Your task to perform on an android device: change alarm snooze length Image 0: 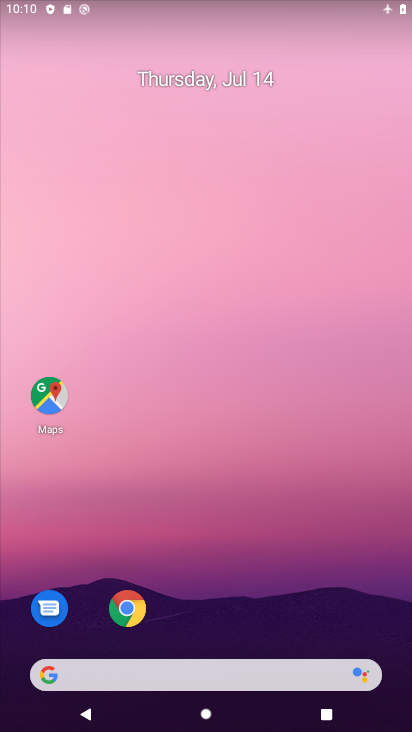
Step 0: drag from (227, 597) to (256, 2)
Your task to perform on an android device: change alarm snooze length Image 1: 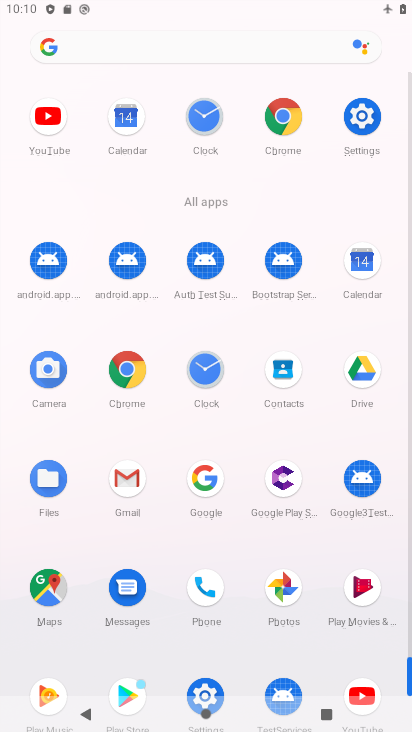
Step 1: click (196, 373)
Your task to perform on an android device: change alarm snooze length Image 2: 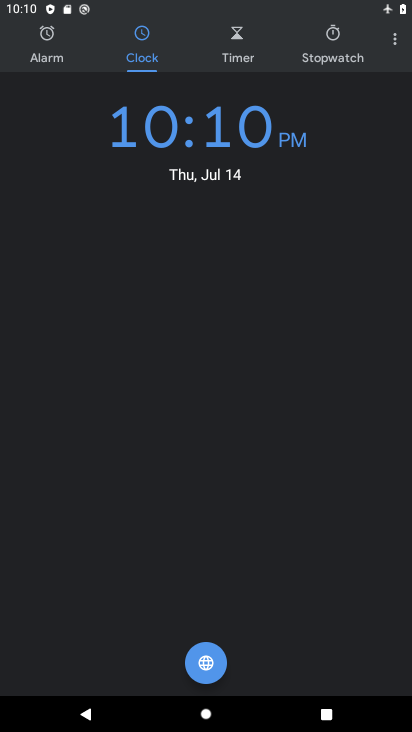
Step 2: click (386, 37)
Your task to perform on an android device: change alarm snooze length Image 3: 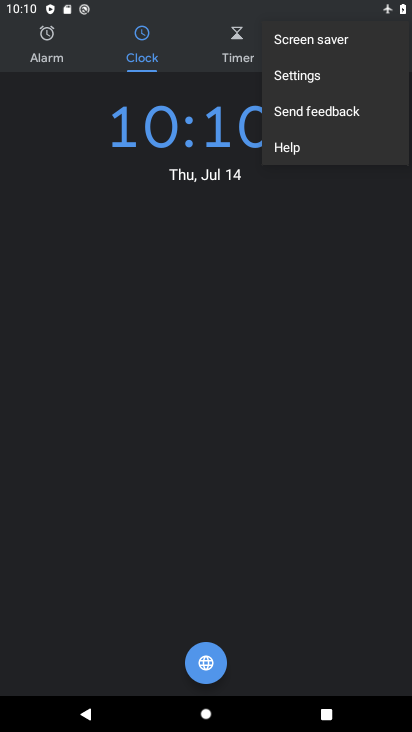
Step 3: click (302, 81)
Your task to perform on an android device: change alarm snooze length Image 4: 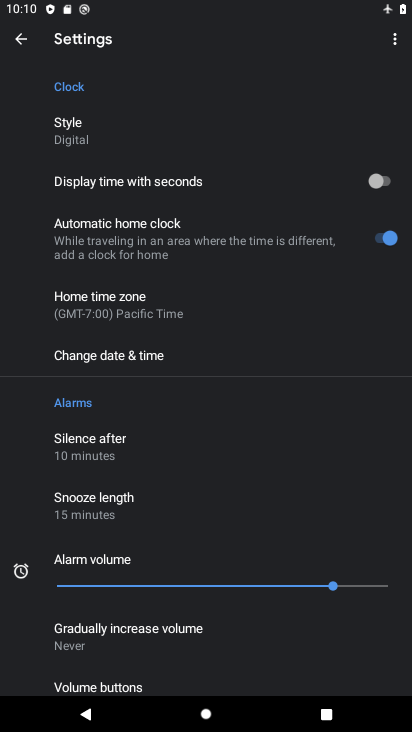
Step 4: click (127, 508)
Your task to perform on an android device: change alarm snooze length Image 5: 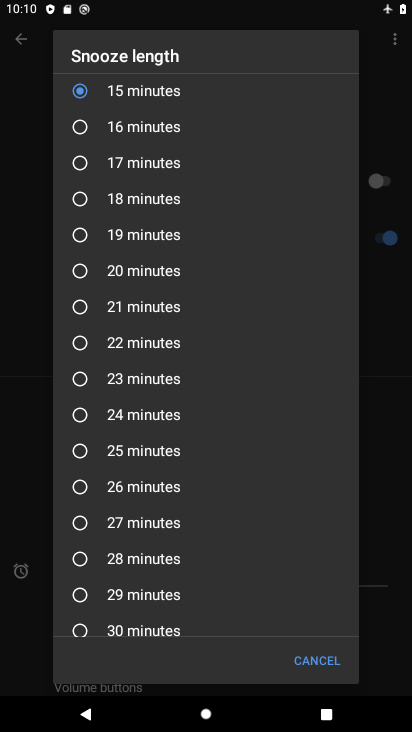
Step 5: click (87, 207)
Your task to perform on an android device: change alarm snooze length Image 6: 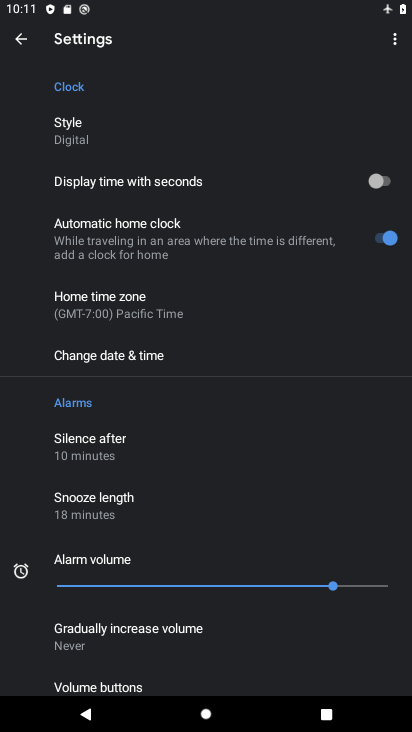
Step 6: task complete